Your task to perform on an android device: Go to Maps Image 0: 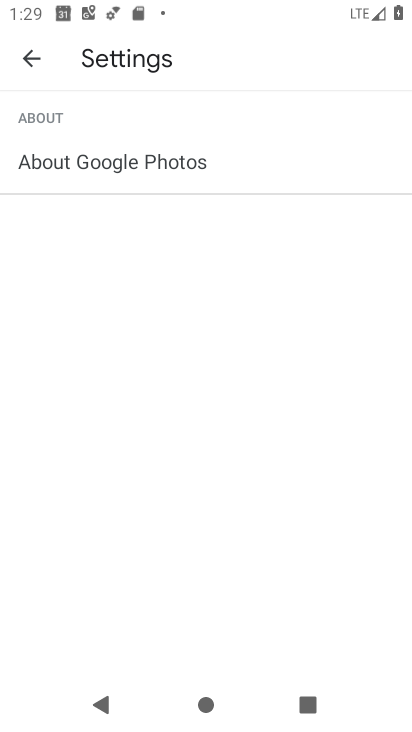
Step 0: press home button
Your task to perform on an android device: Go to Maps Image 1: 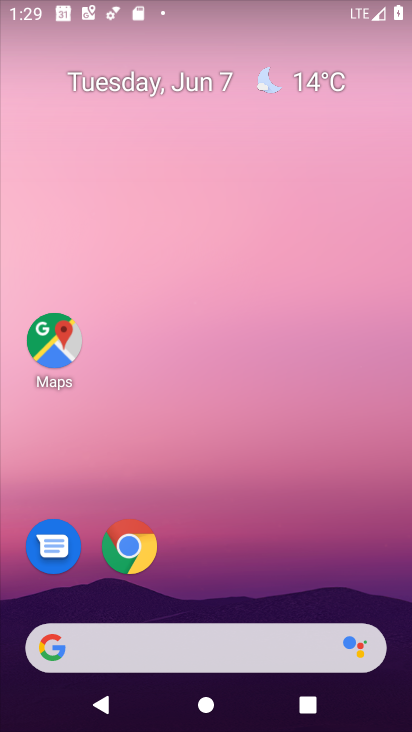
Step 1: click (75, 332)
Your task to perform on an android device: Go to Maps Image 2: 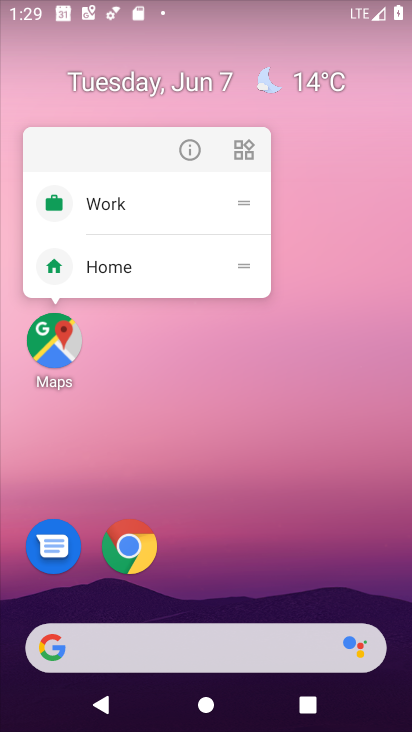
Step 2: click (76, 332)
Your task to perform on an android device: Go to Maps Image 3: 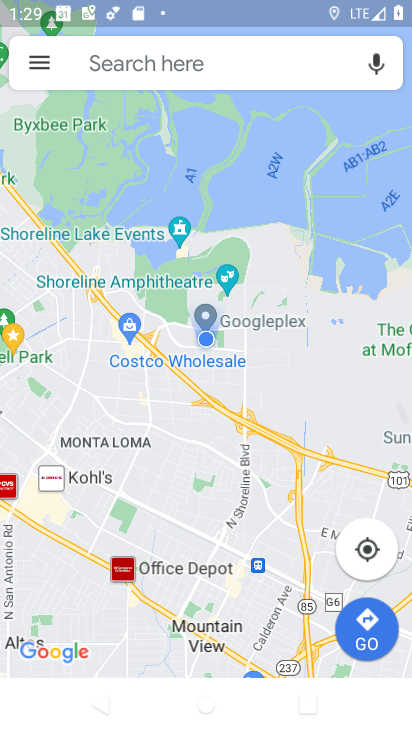
Step 3: task complete